Your task to perform on an android device: Is it going to rain today? Image 0: 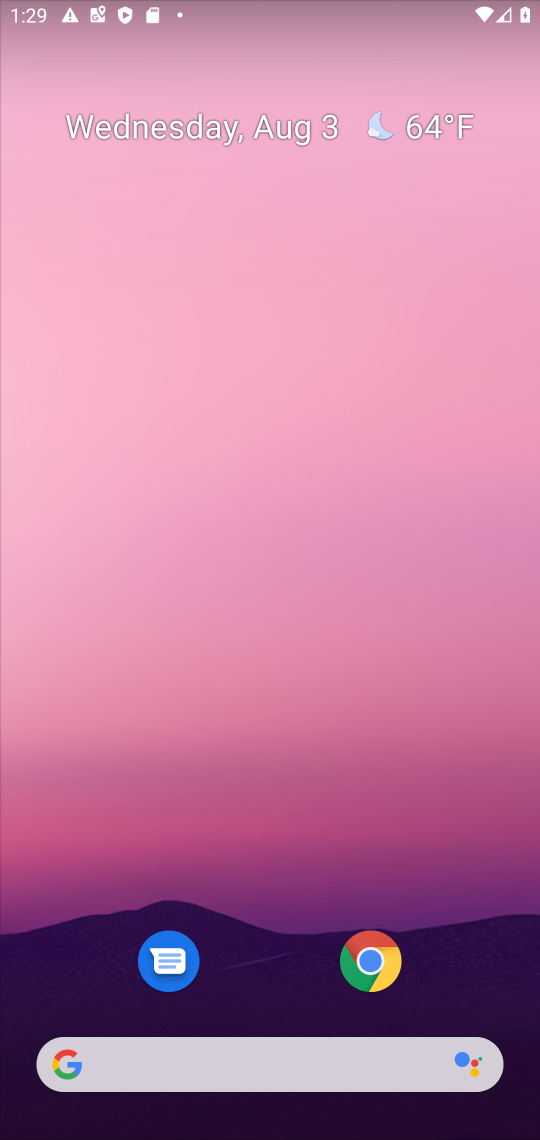
Step 0: click (428, 139)
Your task to perform on an android device: Is it going to rain today? Image 1: 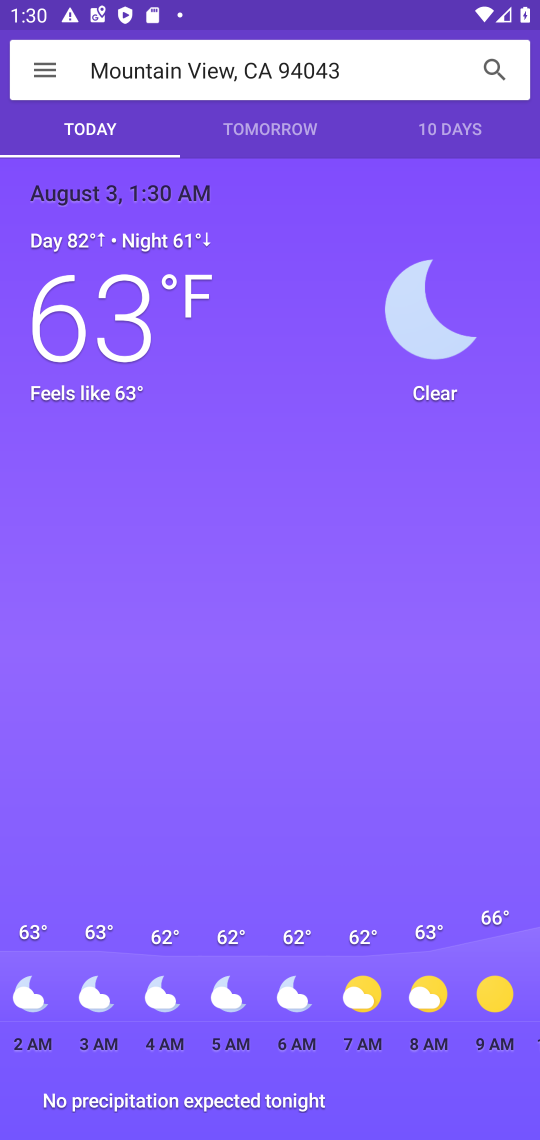
Step 1: task complete